Your task to perform on an android device: change the clock display to analog Image 0: 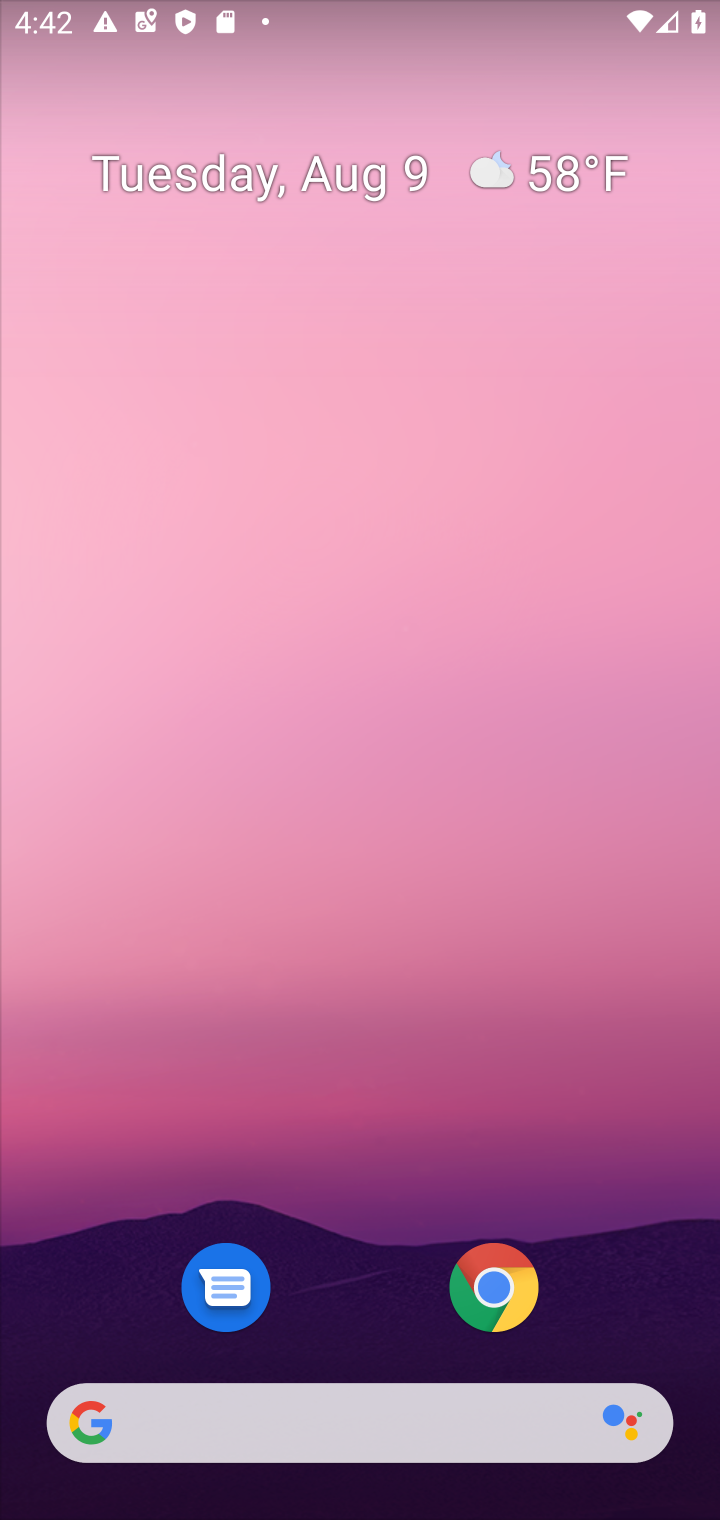
Step 0: drag from (369, 917) to (549, 285)
Your task to perform on an android device: change the clock display to analog Image 1: 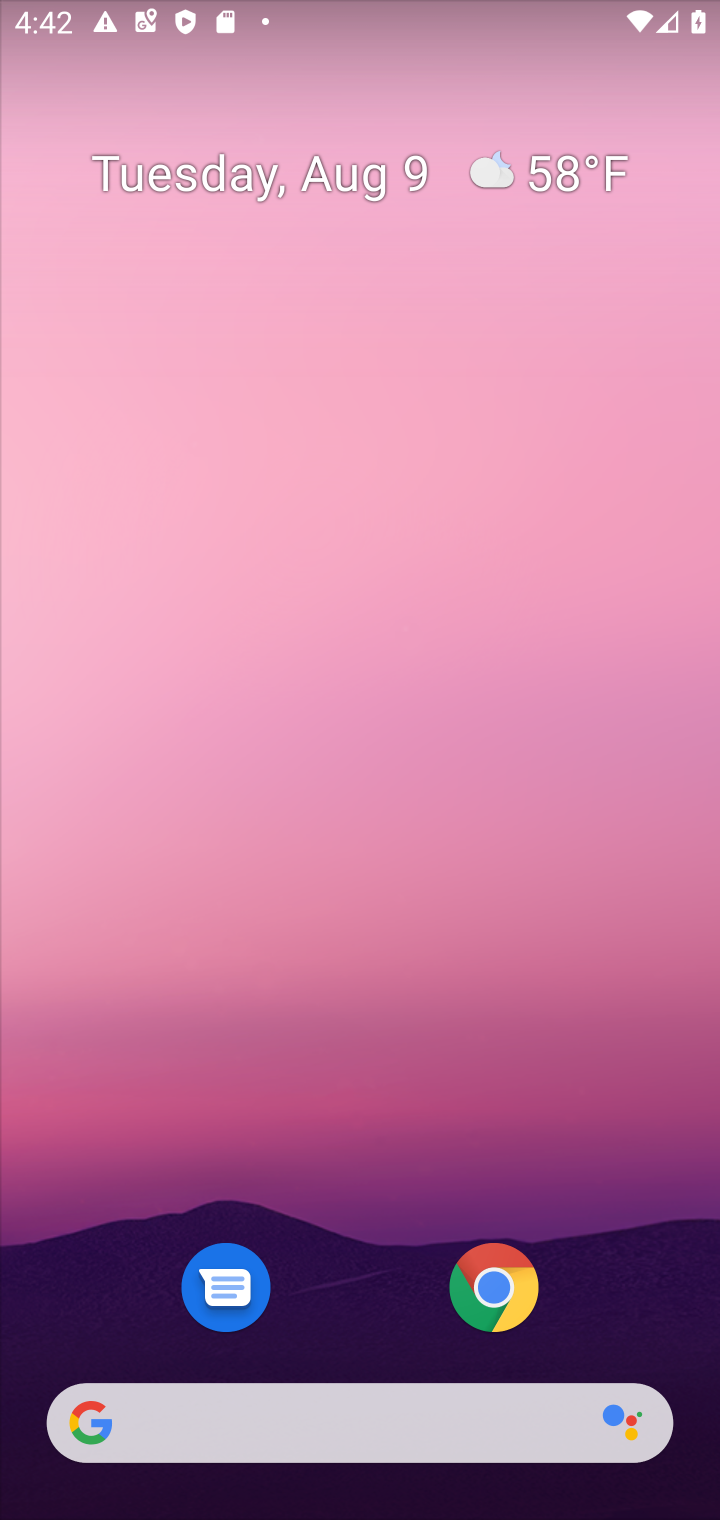
Step 1: drag from (421, 1045) to (563, 203)
Your task to perform on an android device: change the clock display to analog Image 2: 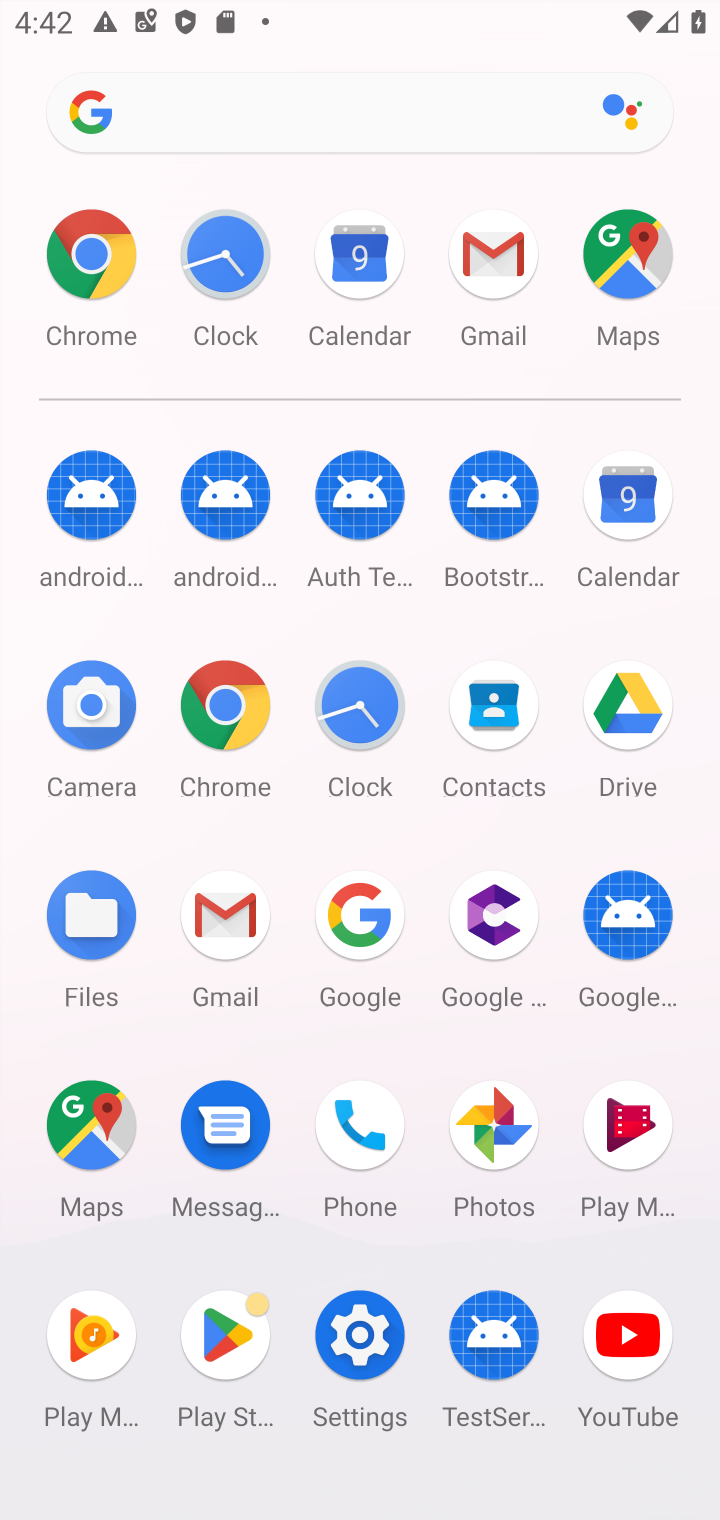
Step 2: click (360, 731)
Your task to perform on an android device: change the clock display to analog Image 3: 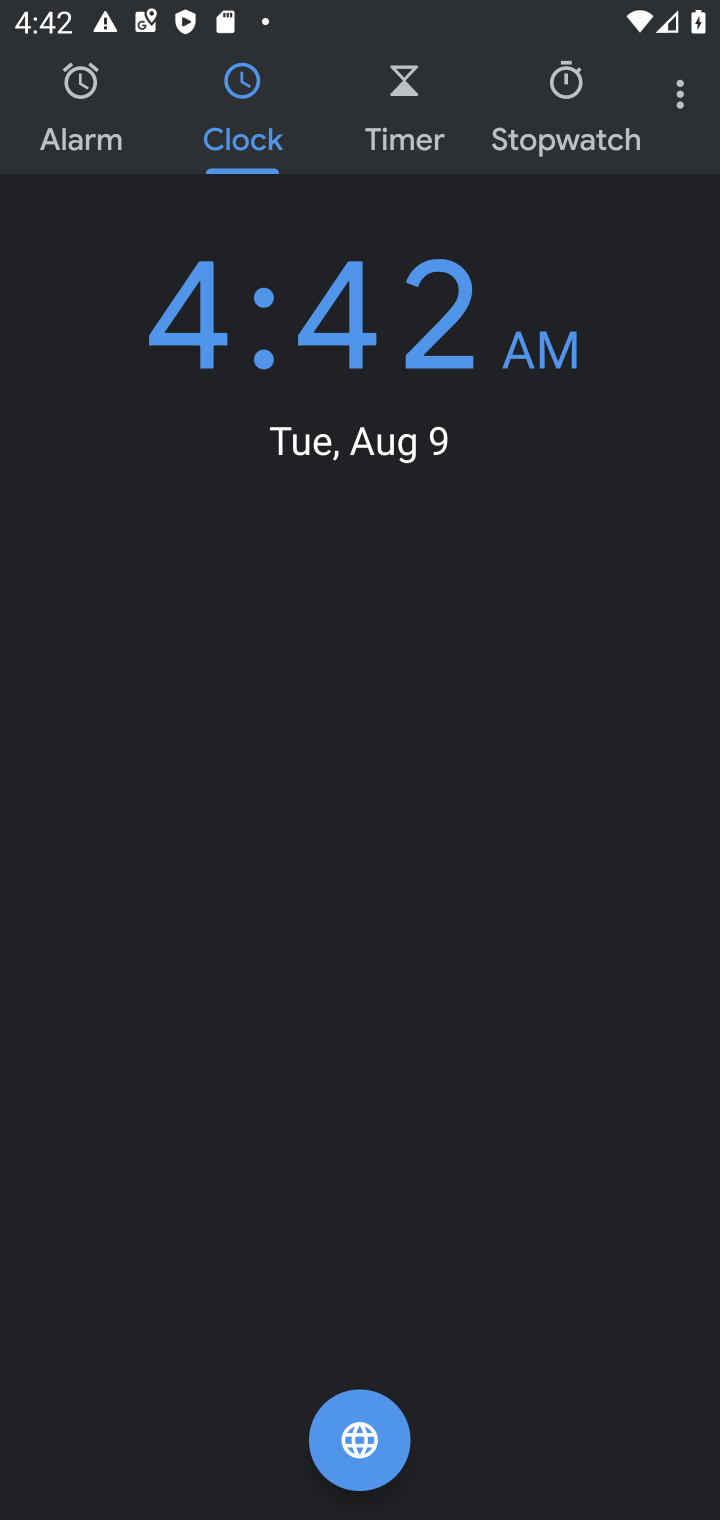
Step 3: click (684, 97)
Your task to perform on an android device: change the clock display to analog Image 4: 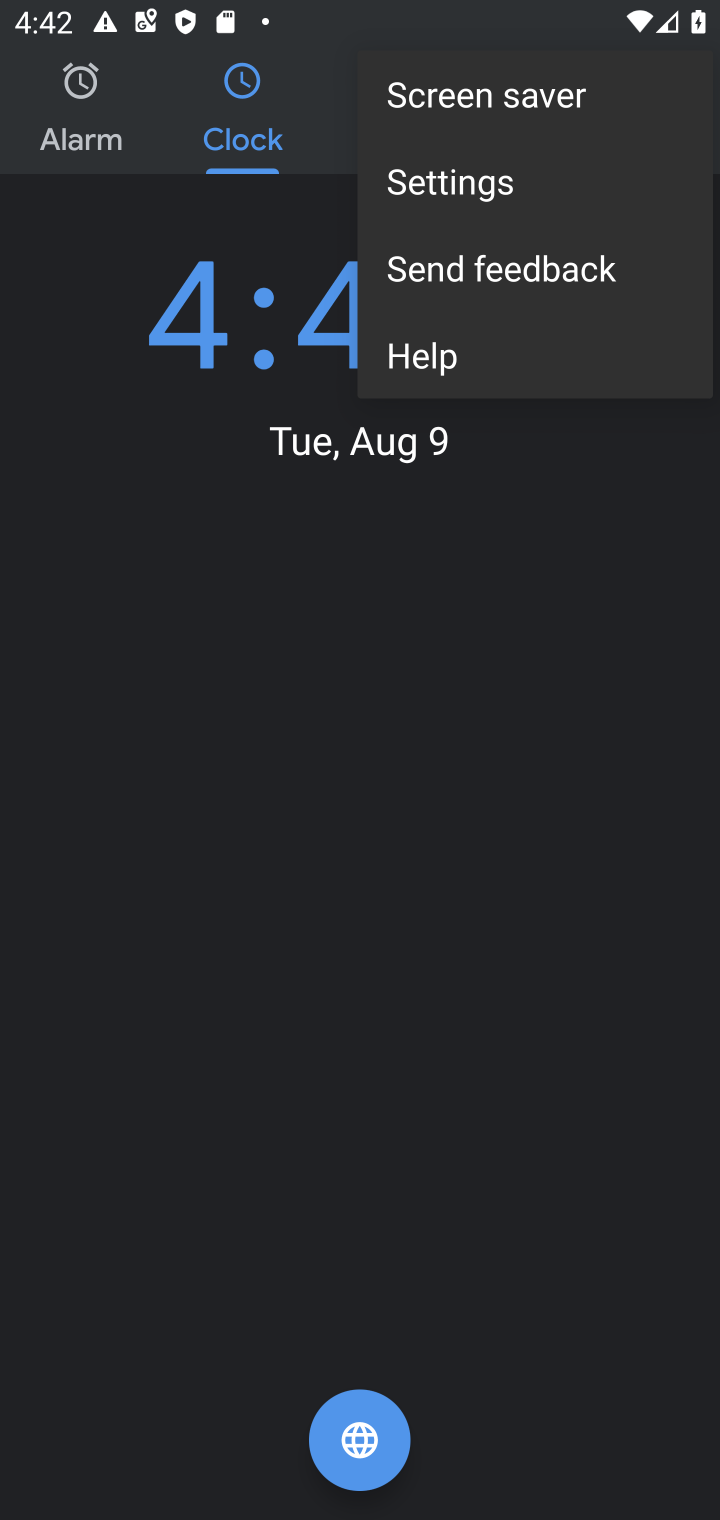
Step 4: click (494, 168)
Your task to perform on an android device: change the clock display to analog Image 5: 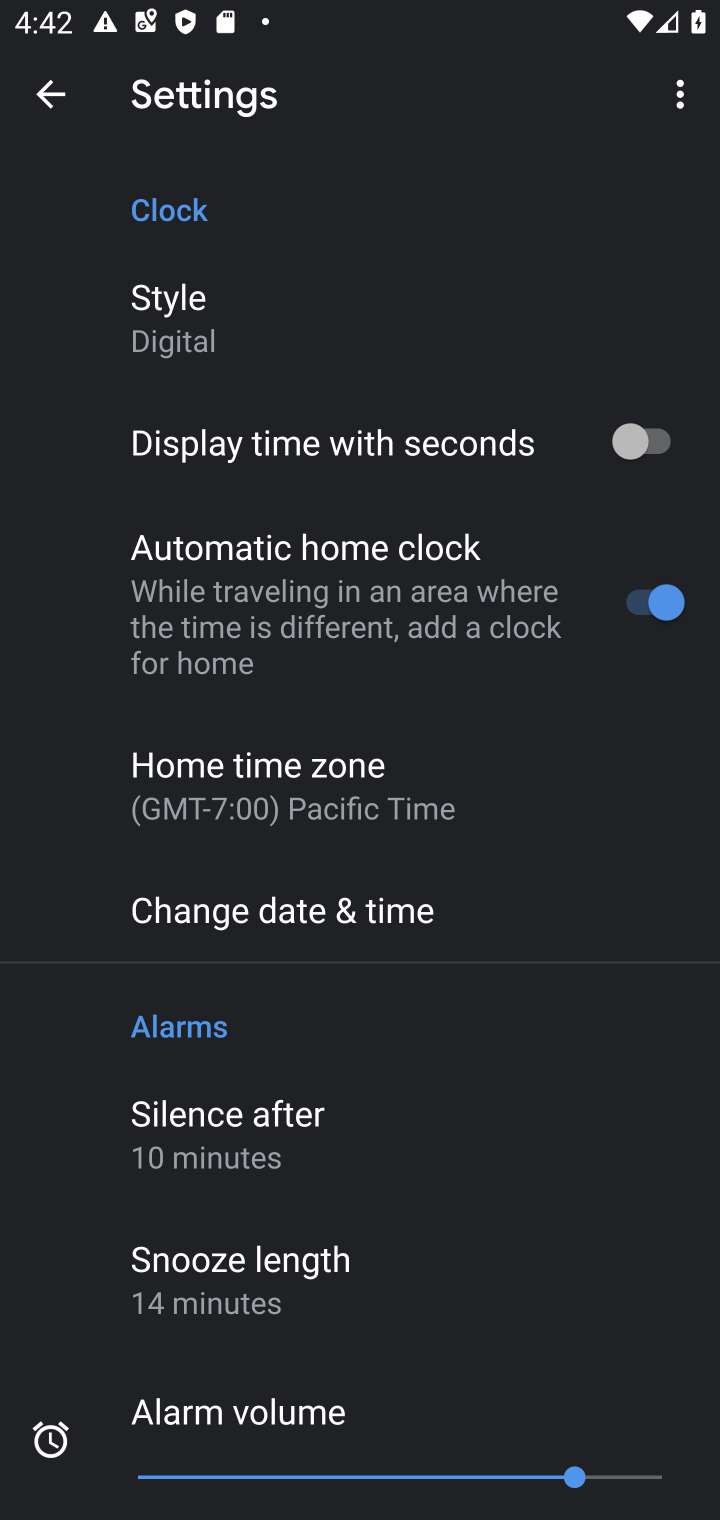
Step 5: click (246, 340)
Your task to perform on an android device: change the clock display to analog Image 6: 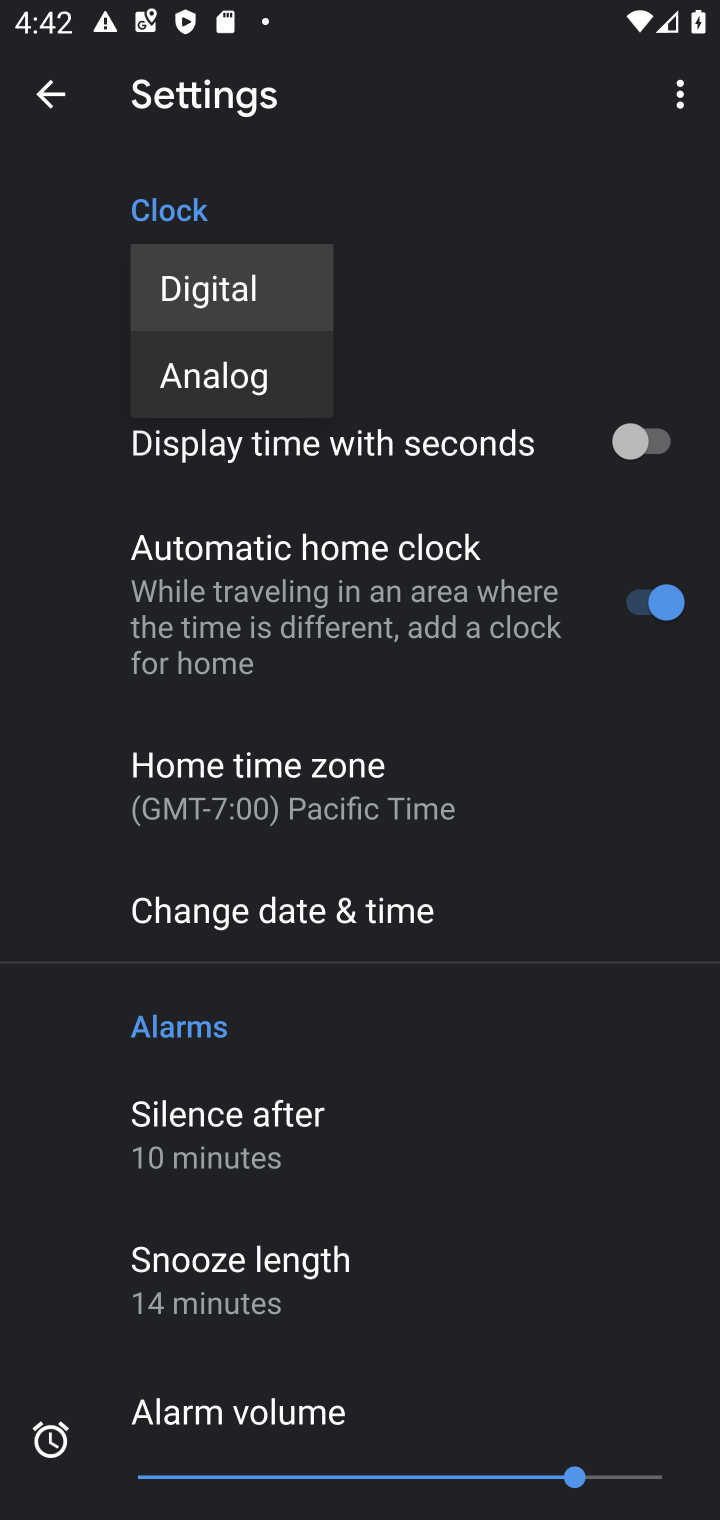
Step 6: click (247, 376)
Your task to perform on an android device: change the clock display to analog Image 7: 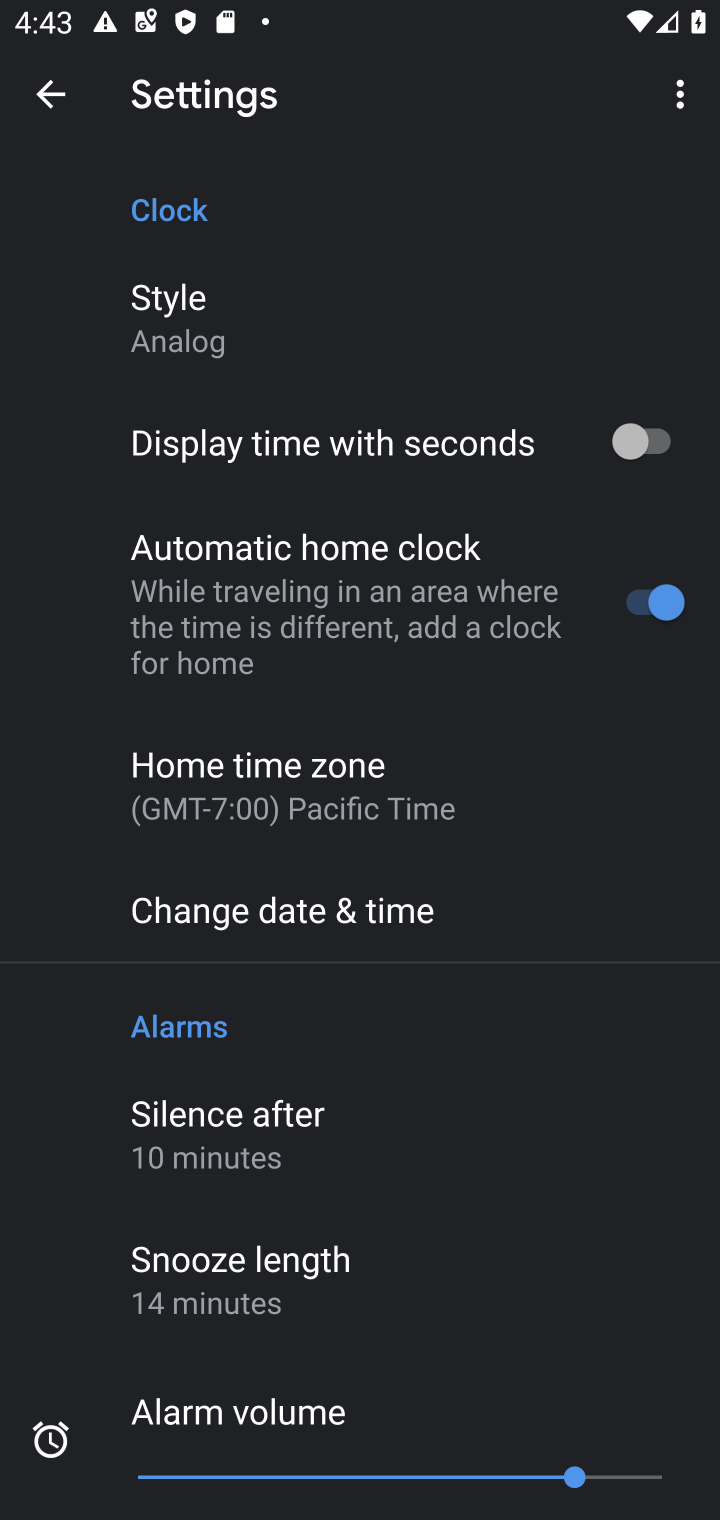
Step 7: task complete